Your task to perform on an android device: change the upload size in google photos Image 0: 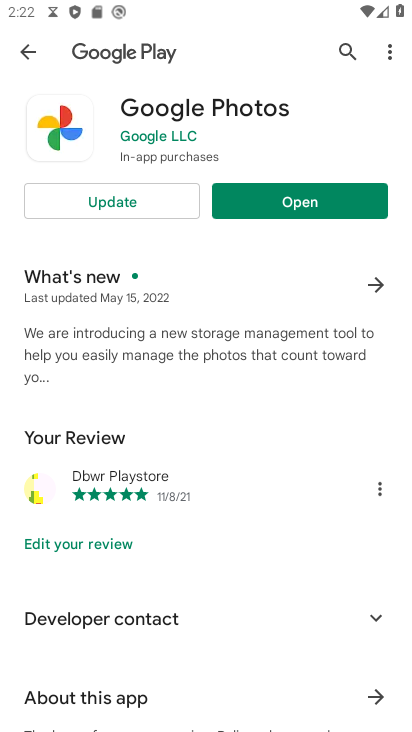
Step 0: press back button
Your task to perform on an android device: change the upload size in google photos Image 1: 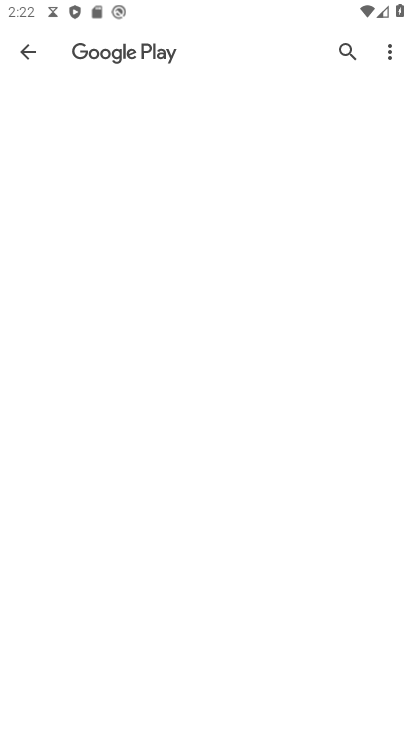
Step 1: press back button
Your task to perform on an android device: change the upload size in google photos Image 2: 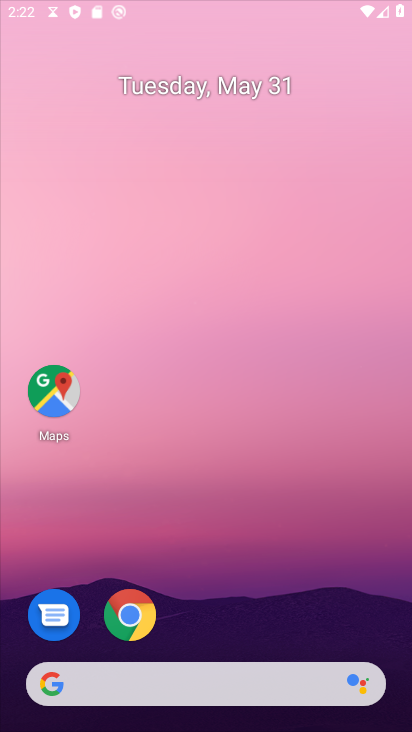
Step 2: press back button
Your task to perform on an android device: change the upload size in google photos Image 3: 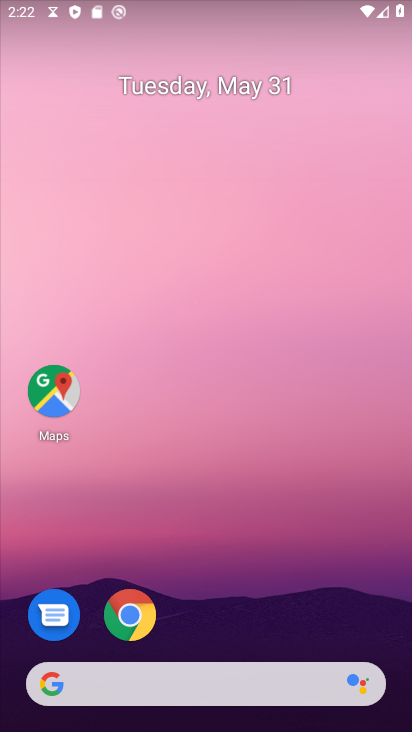
Step 3: drag from (246, 643) to (212, 21)
Your task to perform on an android device: change the upload size in google photos Image 4: 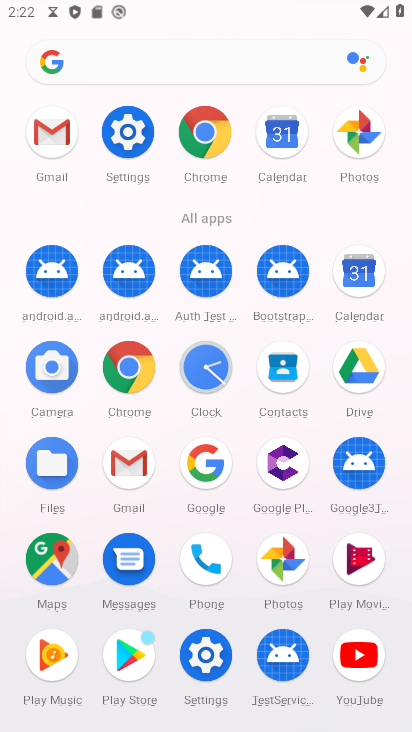
Step 4: click (284, 545)
Your task to perform on an android device: change the upload size in google photos Image 5: 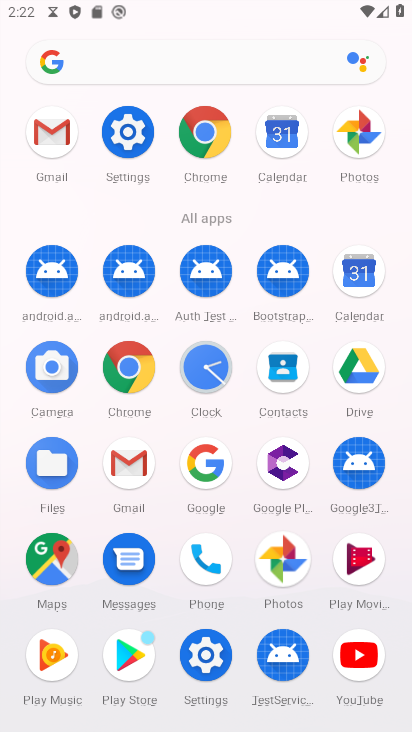
Step 5: click (285, 545)
Your task to perform on an android device: change the upload size in google photos Image 6: 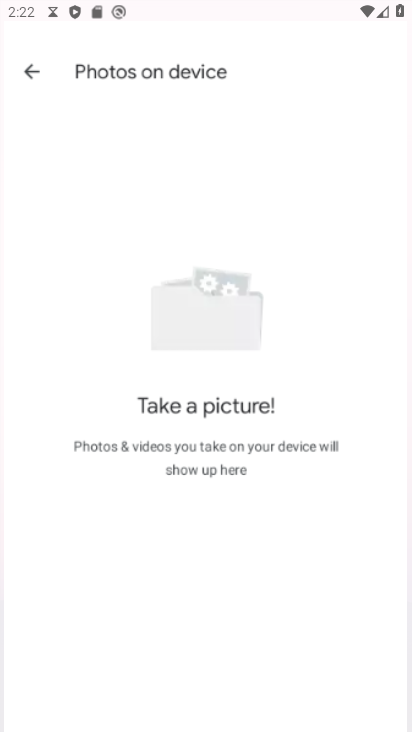
Step 6: click (288, 538)
Your task to perform on an android device: change the upload size in google photos Image 7: 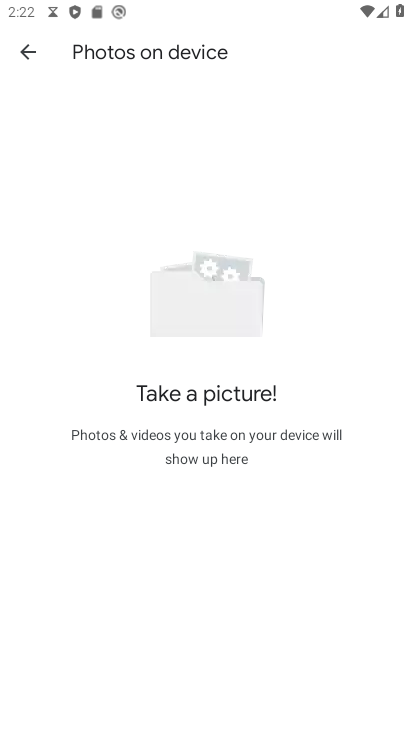
Step 7: click (67, 86)
Your task to perform on an android device: change the upload size in google photos Image 8: 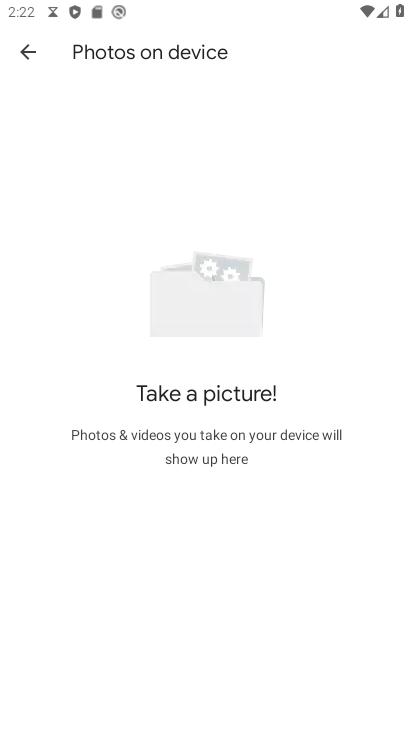
Step 8: click (26, 51)
Your task to perform on an android device: change the upload size in google photos Image 9: 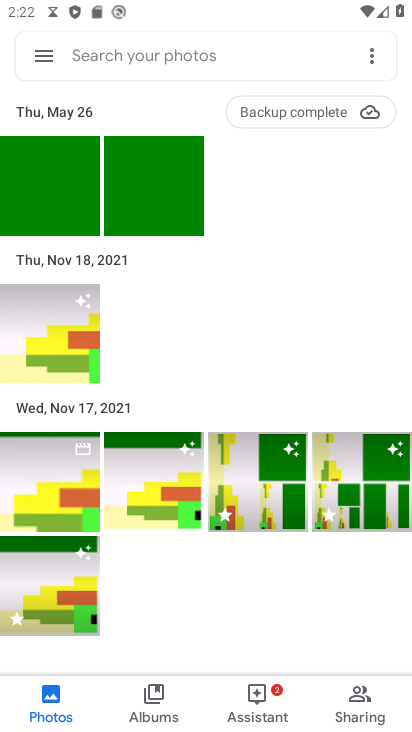
Step 9: click (38, 59)
Your task to perform on an android device: change the upload size in google photos Image 10: 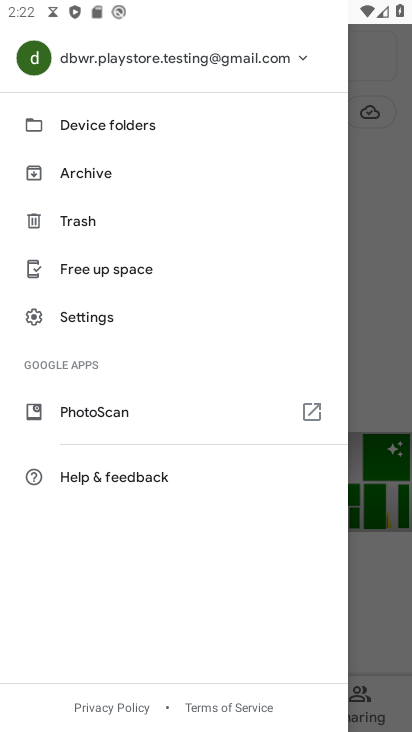
Step 10: click (73, 315)
Your task to perform on an android device: change the upload size in google photos Image 11: 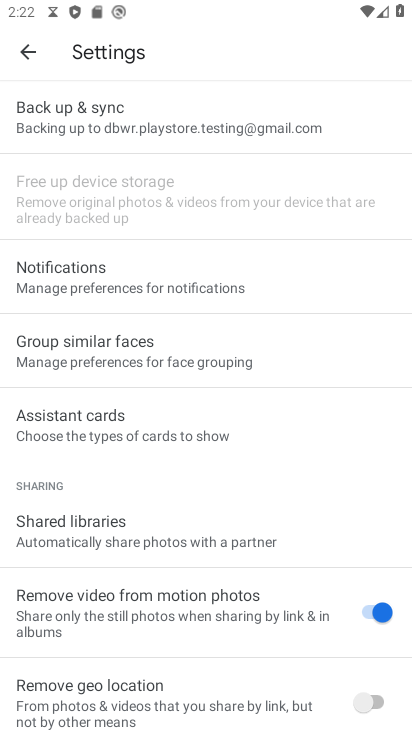
Step 11: click (71, 119)
Your task to perform on an android device: change the upload size in google photos Image 12: 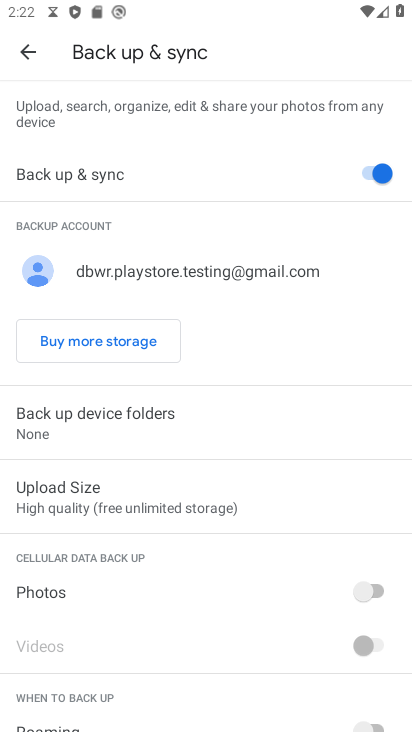
Step 12: click (44, 108)
Your task to perform on an android device: change the upload size in google photos Image 13: 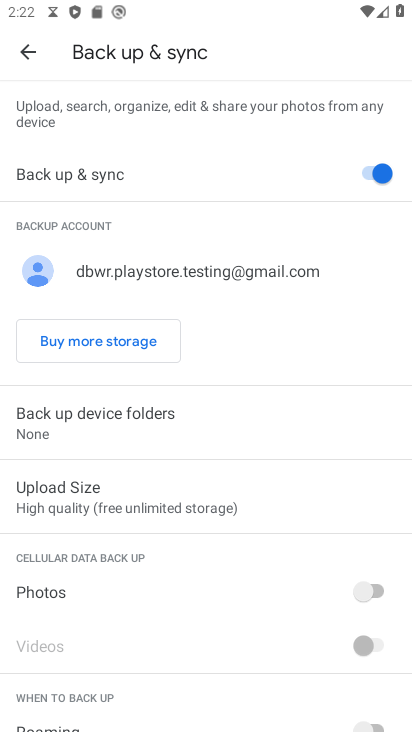
Step 13: click (75, 501)
Your task to perform on an android device: change the upload size in google photos Image 14: 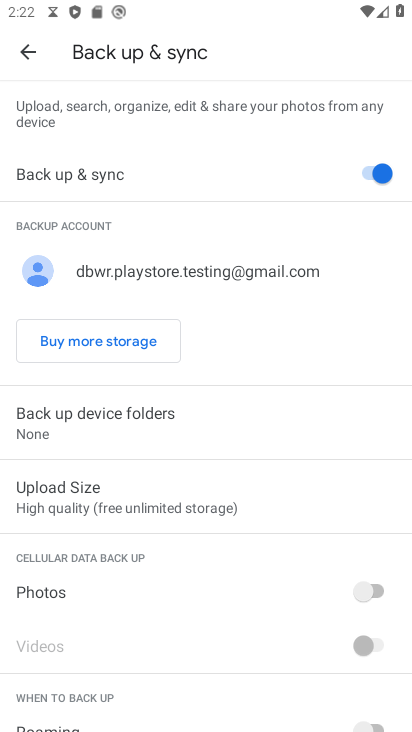
Step 14: click (75, 501)
Your task to perform on an android device: change the upload size in google photos Image 15: 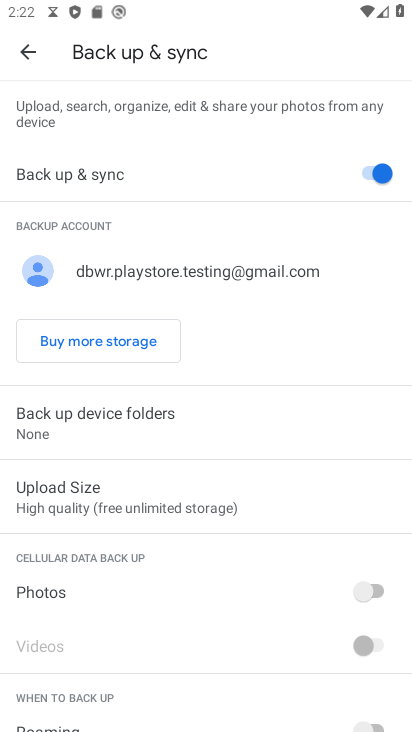
Step 15: click (62, 504)
Your task to perform on an android device: change the upload size in google photos Image 16: 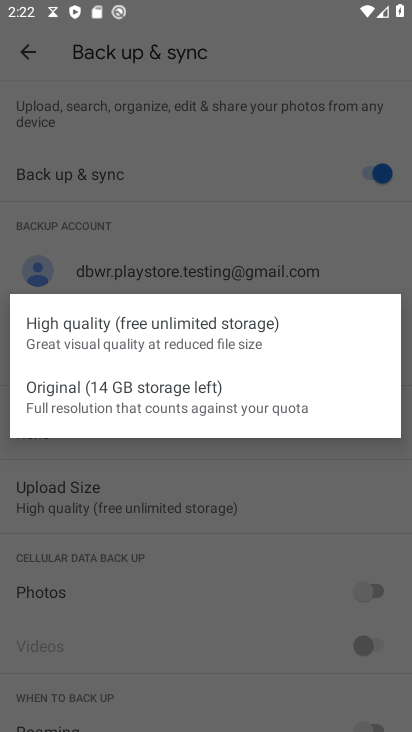
Step 16: click (59, 400)
Your task to perform on an android device: change the upload size in google photos Image 17: 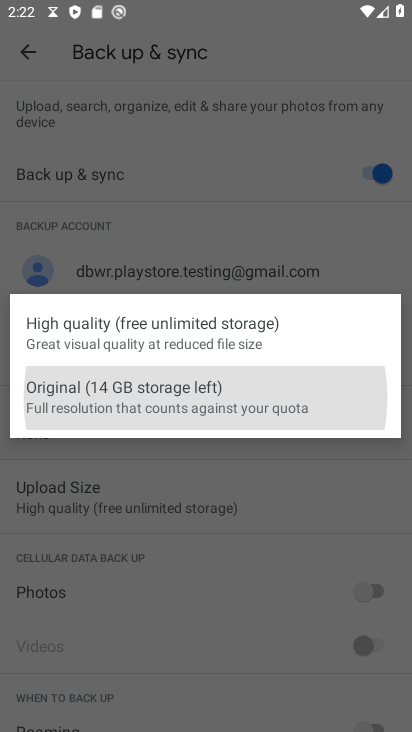
Step 17: click (59, 400)
Your task to perform on an android device: change the upload size in google photos Image 18: 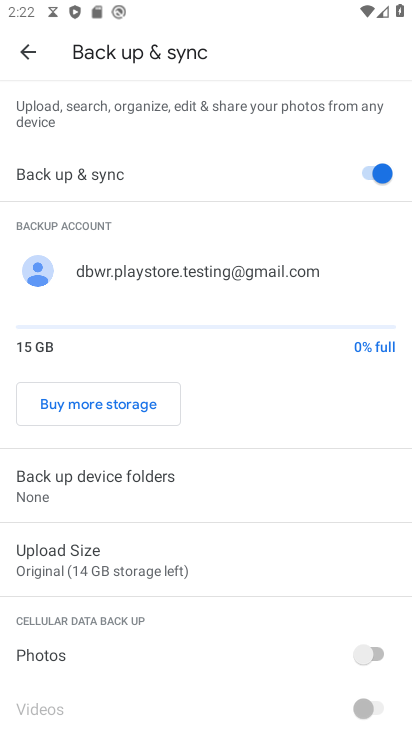
Step 18: click (59, 399)
Your task to perform on an android device: change the upload size in google photos Image 19: 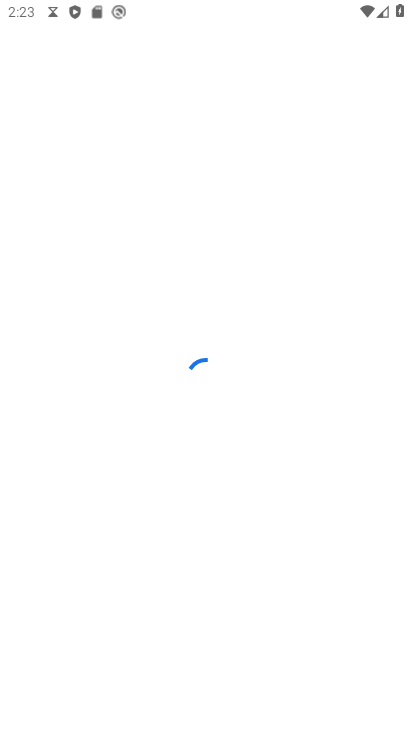
Step 19: task complete